Your task to perform on an android device: Open network settings Image 0: 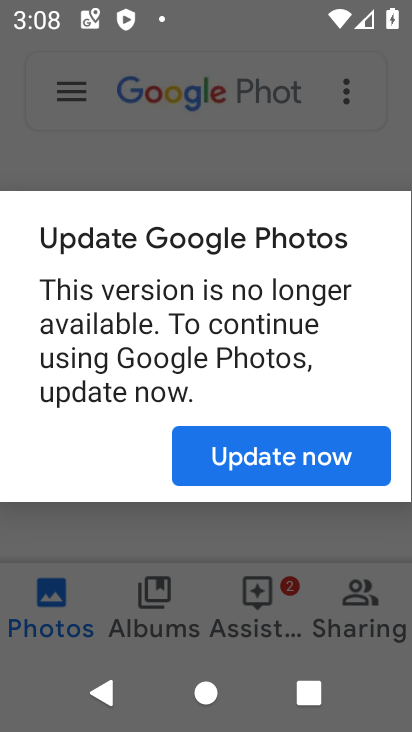
Step 0: click (374, 446)
Your task to perform on an android device: Open network settings Image 1: 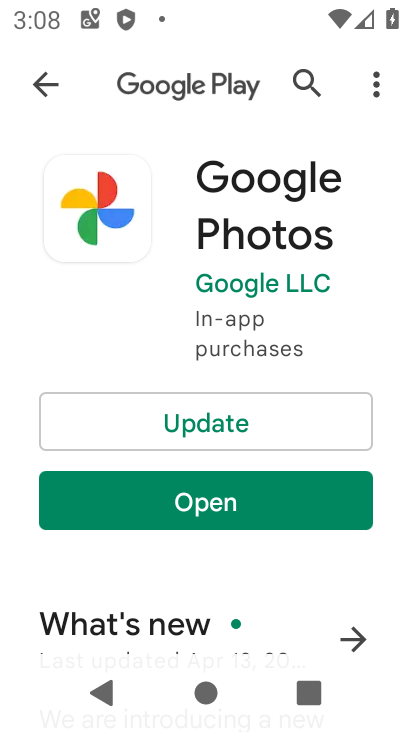
Step 1: press home button
Your task to perform on an android device: Open network settings Image 2: 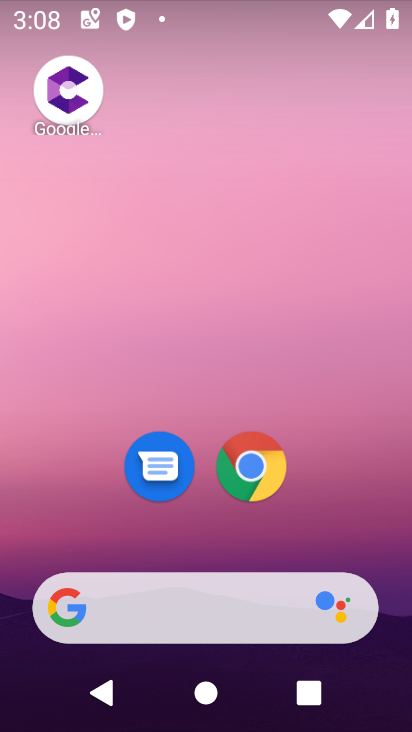
Step 2: drag from (326, 508) to (340, 47)
Your task to perform on an android device: Open network settings Image 3: 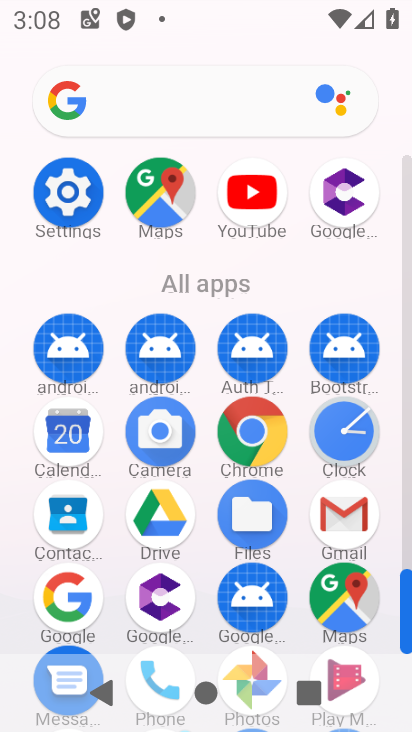
Step 3: click (61, 184)
Your task to perform on an android device: Open network settings Image 4: 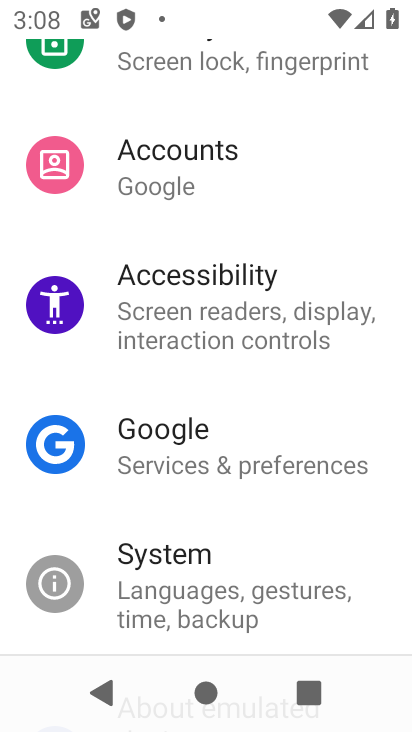
Step 4: drag from (272, 243) to (299, 614)
Your task to perform on an android device: Open network settings Image 5: 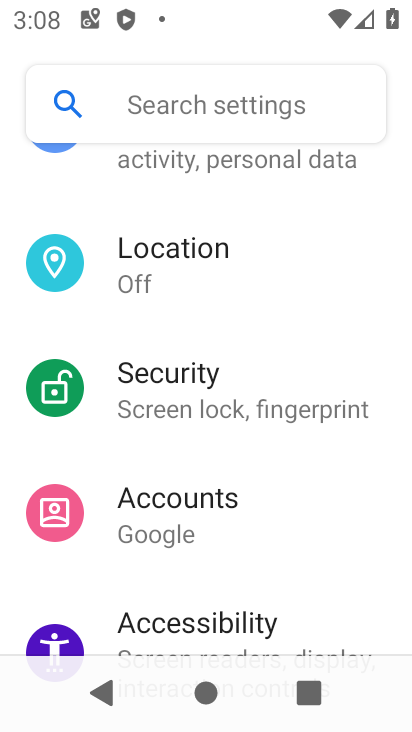
Step 5: drag from (185, 194) to (192, 614)
Your task to perform on an android device: Open network settings Image 6: 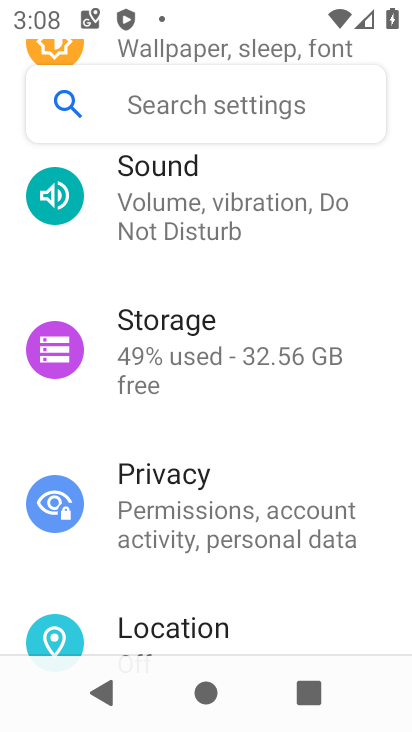
Step 6: drag from (212, 164) to (269, 649)
Your task to perform on an android device: Open network settings Image 7: 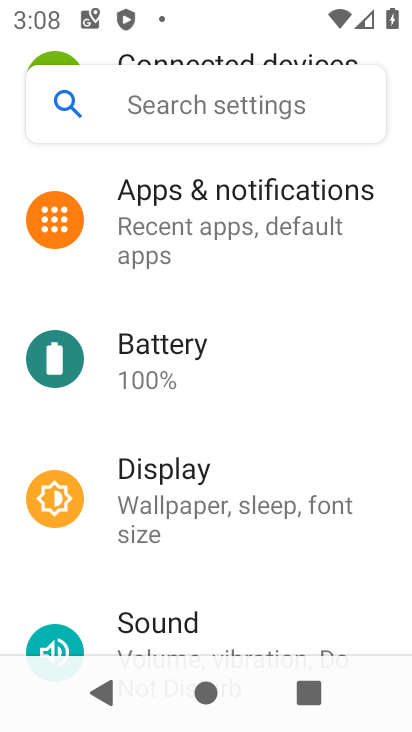
Step 7: drag from (222, 176) to (270, 602)
Your task to perform on an android device: Open network settings Image 8: 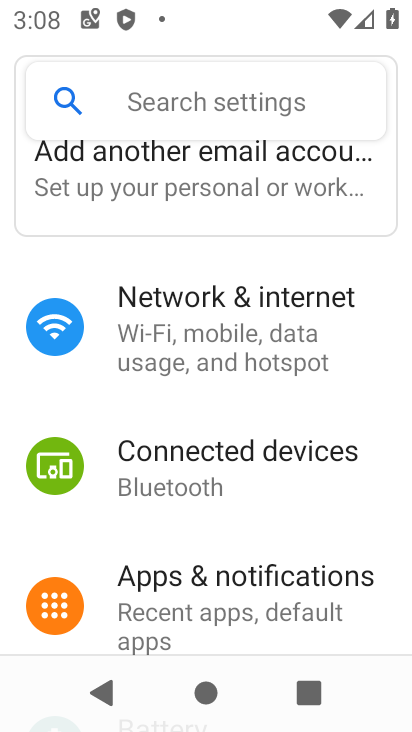
Step 8: click (227, 325)
Your task to perform on an android device: Open network settings Image 9: 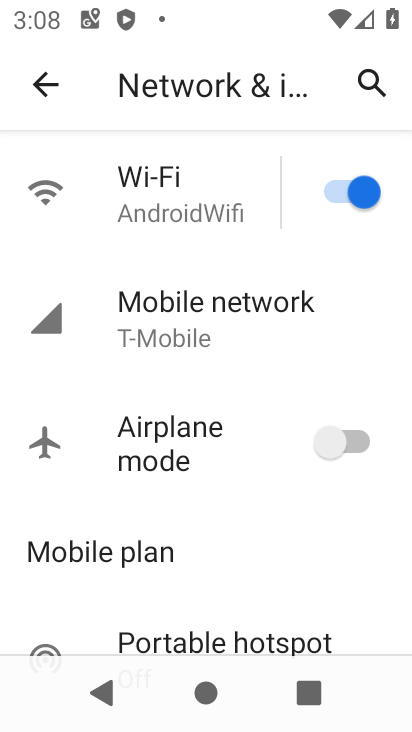
Step 9: task complete